Your task to perform on an android device: What's the weather going to be this weekend? Image 0: 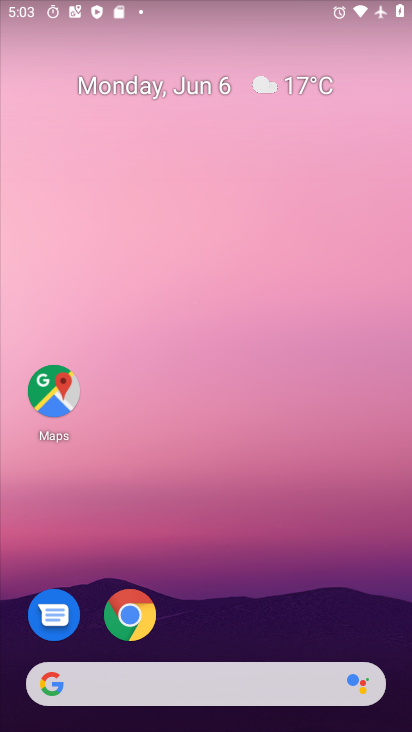
Step 0: drag from (210, 213) to (186, 14)
Your task to perform on an android device: What's the weather going to be this weekend? Image 1: 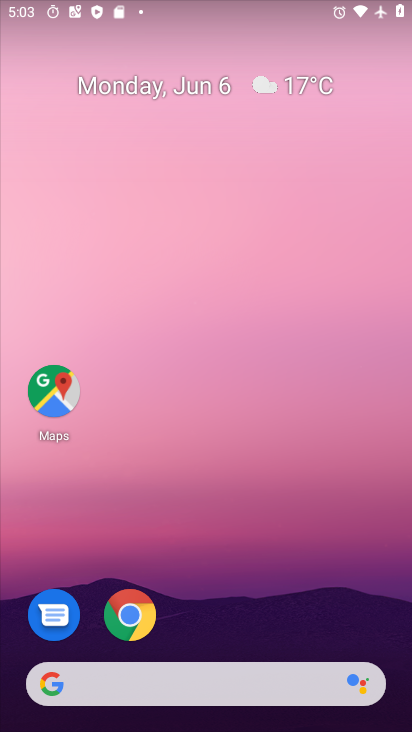
Step 1: drag from (274, 570) to (215, 17)
Your task to perform on an android device: What's the weather going to be this weekend? Image 2: 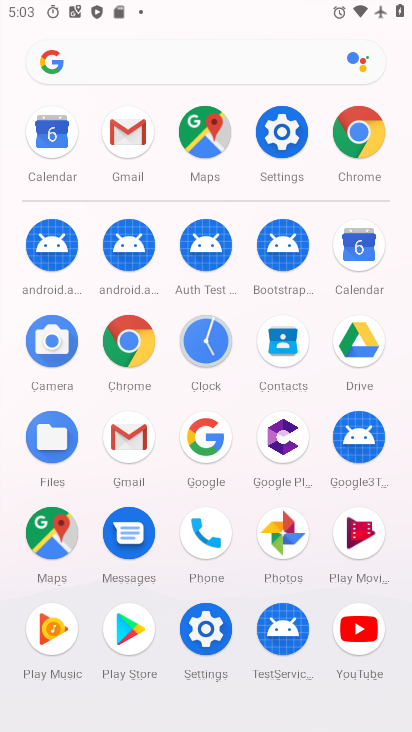
Step 2: drag from (18, 585) to (15, 256)
Your task to perform on an android device: What's the weather going to be this weekend? Image 3: 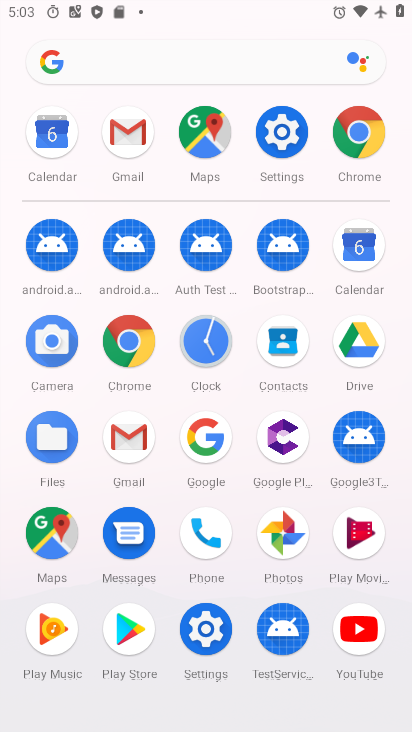
Step 3: drag from (20, 526) to (1, 258)
Your task to perform on an android device: What's the weather going to be this weekend? Image 4: 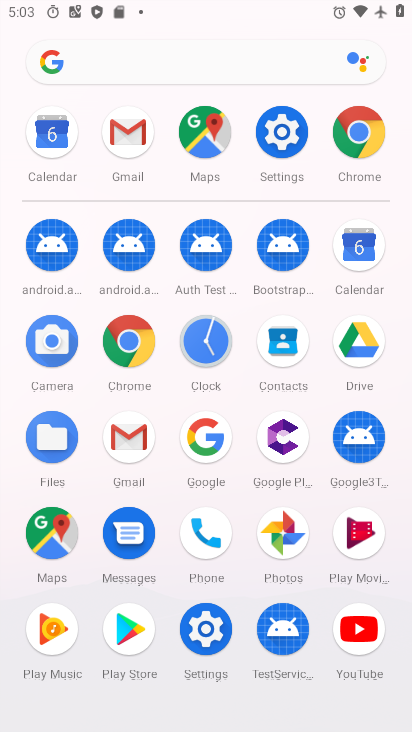
Step 4: click (128, 339)
Your task to perform on an android device: What's the weather going to be this weekend? Image 5: 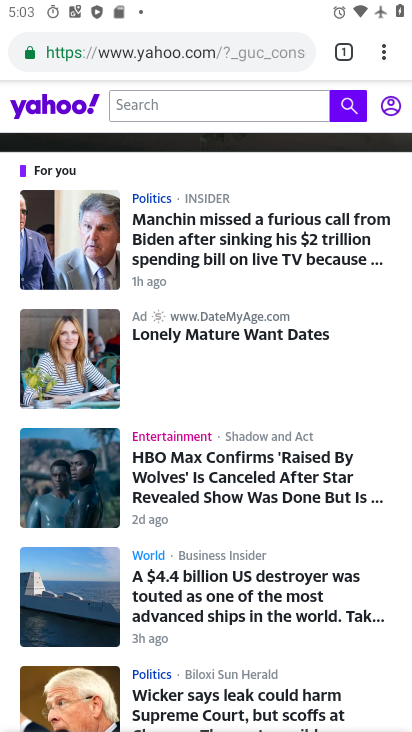
Step 5: click (168, 50)
Your task to perform on an android device: What's the weather going to be this weekend? Image 6: 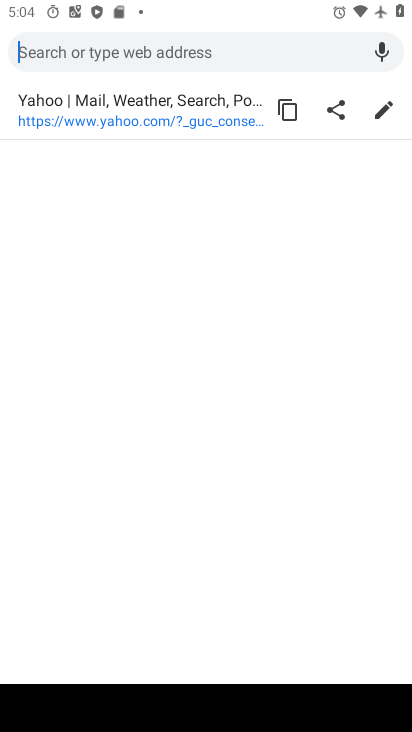
Step 6: type "What's the weather going to be this weekend?"
Your task to perform on an android device: What's the weather going to be this weekend? Image 7: 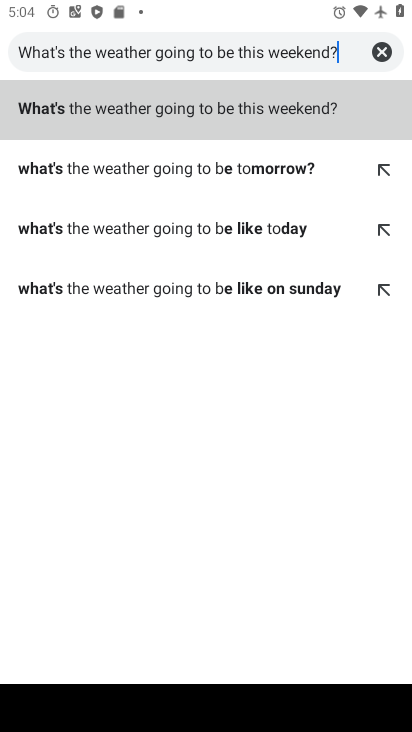
Step 7: type ""
Your task to perform on an android device: What's the weather going to be this weekend? Image 8: 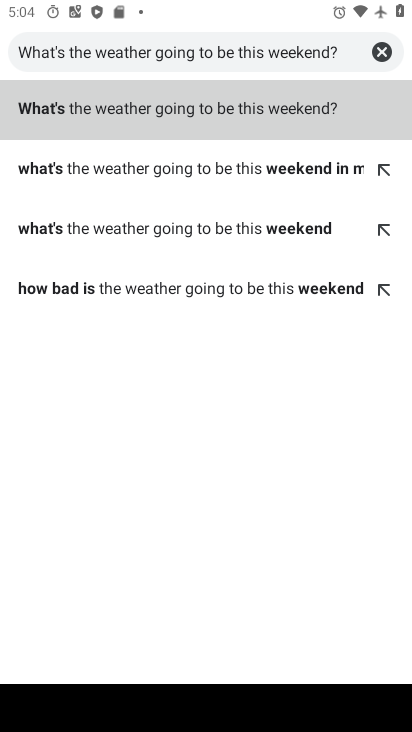
Step 8: click (148, 103)
Your task to perform on an android device: What's the weather going to be this weekend? Image 9: 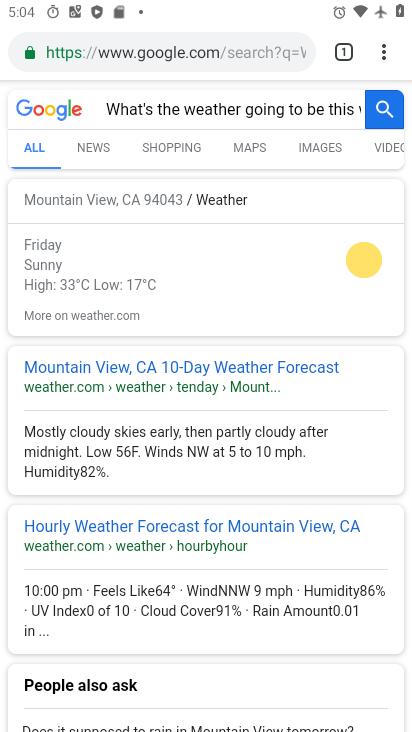
Step 9: task complete